Your task to perform on an android device: stop showing notifications on the lock screen Image 0: 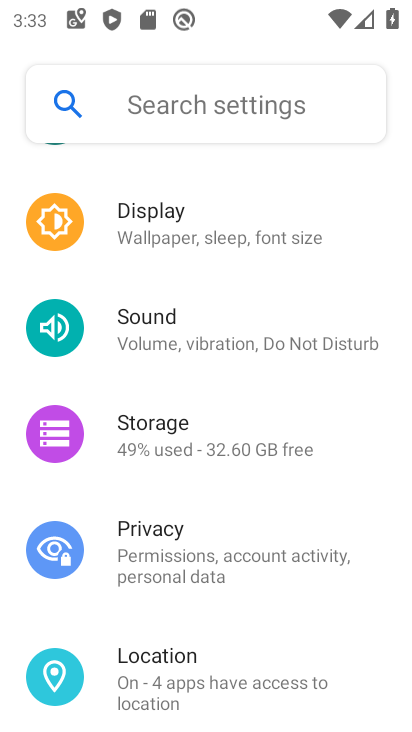
Step 0: drag from (258, 260) to (225, 608)
Your task to perform on an android device: stop showing notifications on the lock screen Image 1: 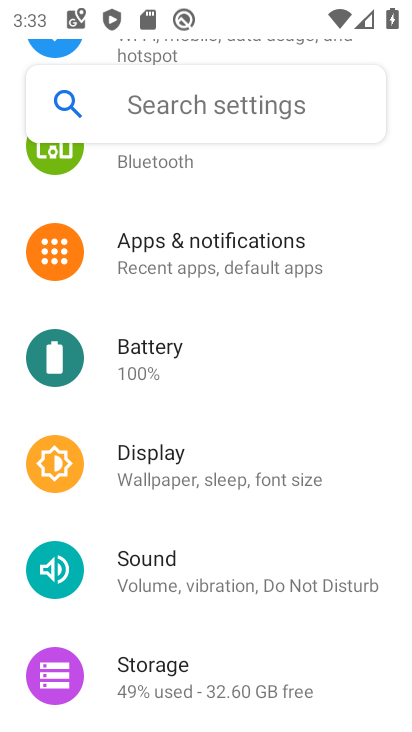
Step 1: click (191, 241)
Your task to perform on an android device: stop showing notifications on the lock screen Image 2: 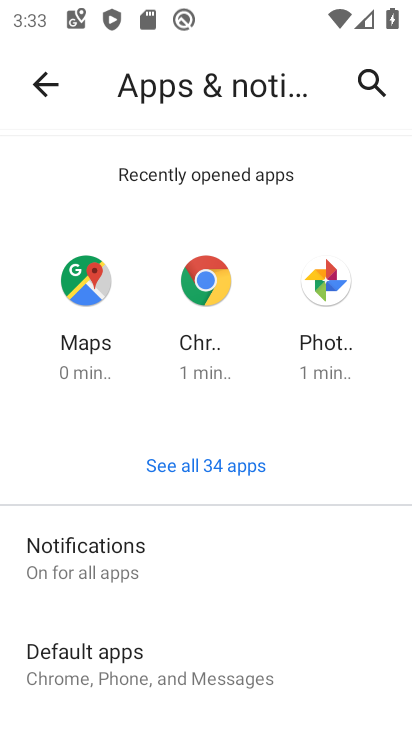
Step 2: click (72, 545)
Your task to perform on an android device: stop showing notifications on the lock screen Image 3: 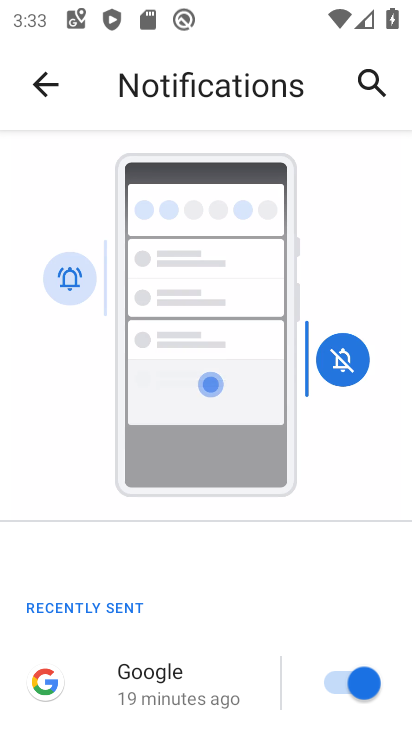
Step 3: drag from (296, 731) to (250, 195)
Your task to perform on an android device: stop showing notifications on the lock screen Image 4: 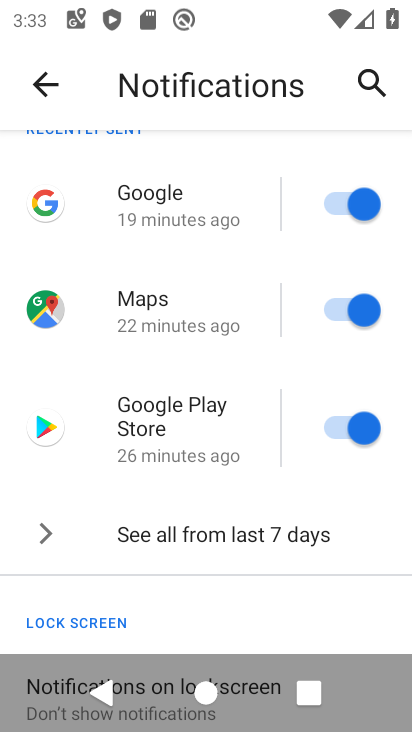
Step 4: drag from (270, 618) to (256, 140)
Your task to perform on an android device: stop showing notifications on the lock screen Image 5: 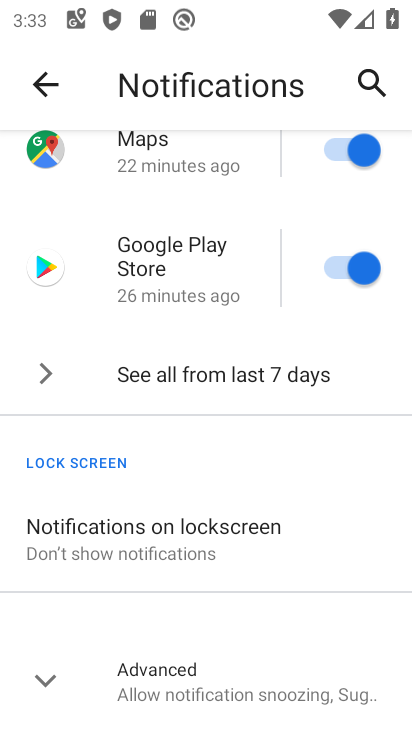
Step 5: click (84, 508)
Your task to perform on an android device: stop showing notifications on the lock screen Image 6: 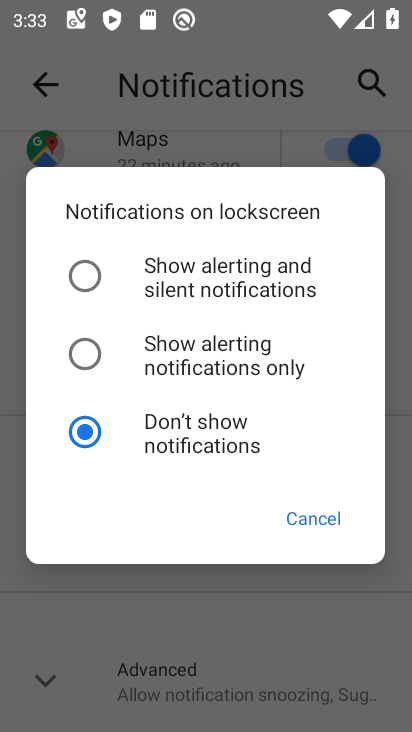
Step 6: task complete